Your task to perform on an android device: check storage Image 0: 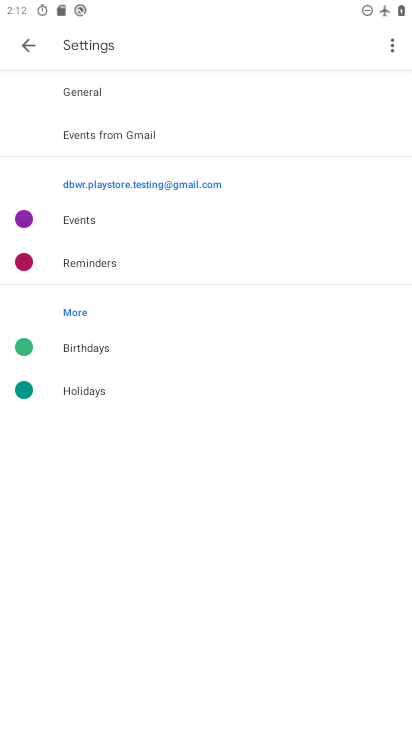
Step 0: press home button
Your task to perform on an android device: check storage Image 1: 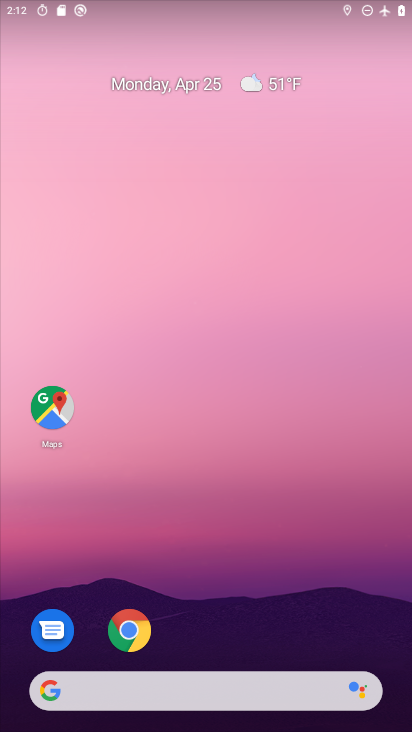
Step 1: drag from (257, 597) to (345, 6)
Your task to perform on an android device: check storage Image 2: 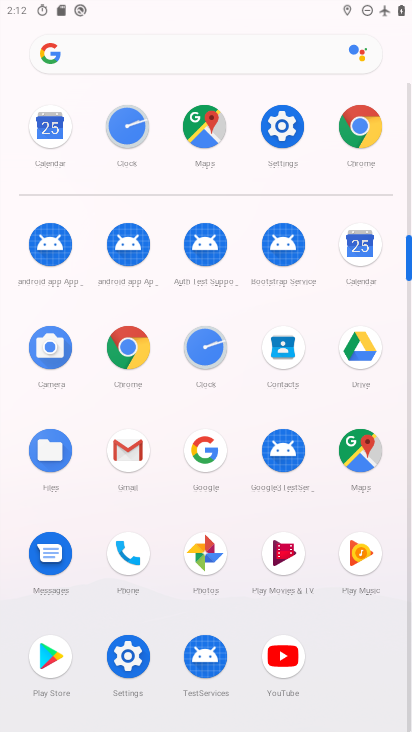
Step 2: click (280, 117)
Your task to perform on an android device: check storage Image 3: 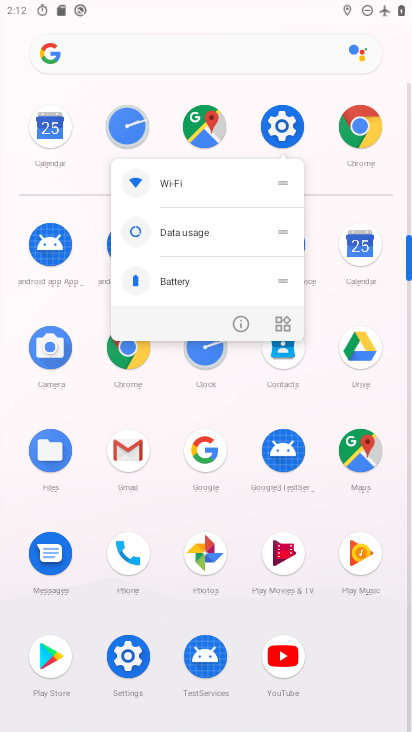
Step 3: click (280, 116)
Your task to perform on an android device: check storage Image 4: 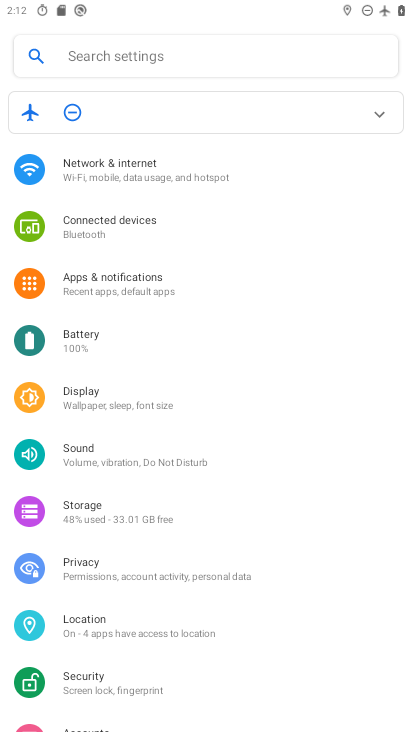
Step 4: drag from (221, 577) to (287, 264)
Your task to perform on an android device: check storage Image 5: 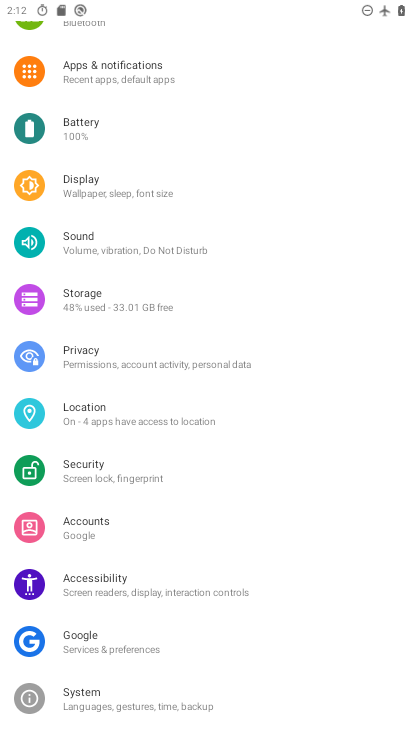
Step 5: click (141, 309)
Your task to perform on an android device: check storage Image 6: 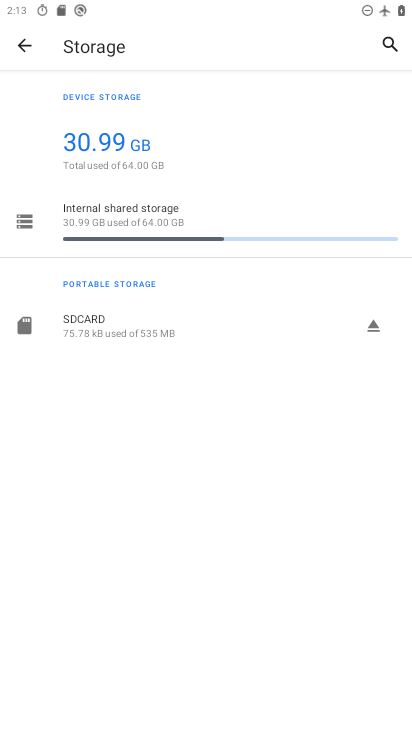
Step 6: click (154, 222)
Your task to perform on an android device: check storage Image 7: 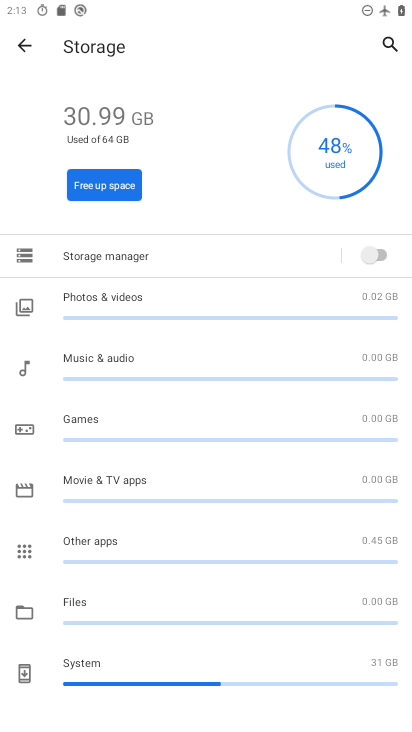
Step 7: task complete